Your task to perform on an android device: add a label to a message in the gmail app Image 0: 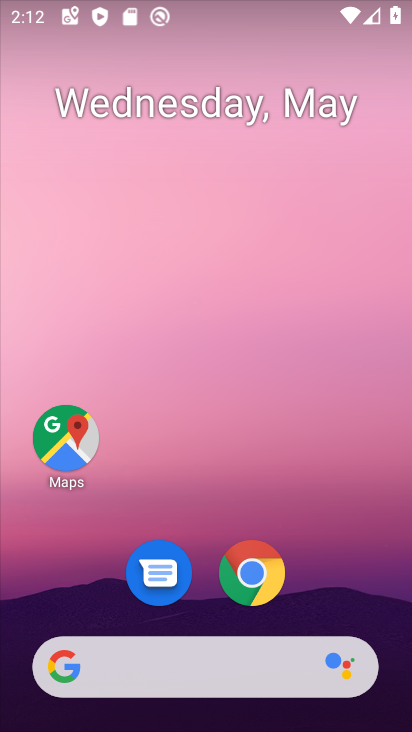
Step 0: drag from (326, 557) to (283, 17)
Your task to perform on an android device: add a label to a message in the gmail app Image 1: 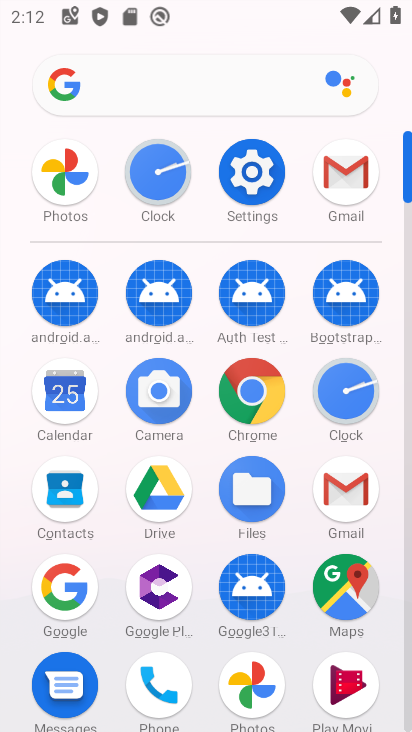
Step 1: click (337, 176)
Your task to perform on an android device: add a label to a message in the gmail app Image 2: 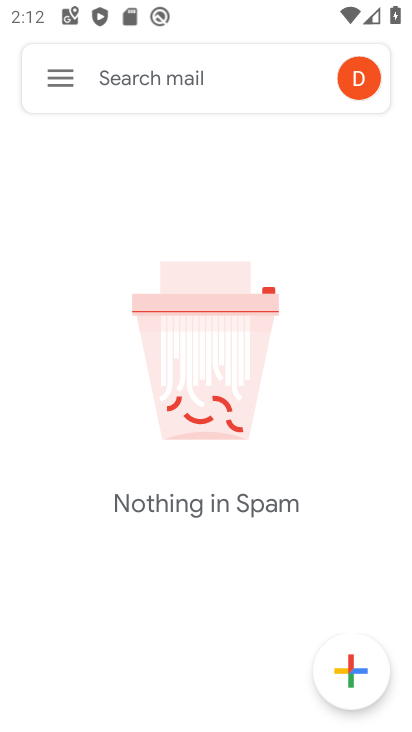
Step 2: click (63, 75)
Your task to perform on an android device: add a label to a message in the gmail app Image 3: 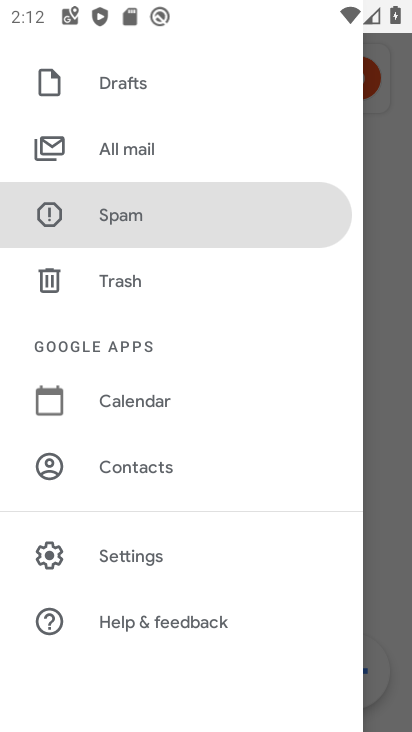
Step 3: click (173, 145)
Your task to perform on an android device: add a label to a message in the gmail app Image 4: 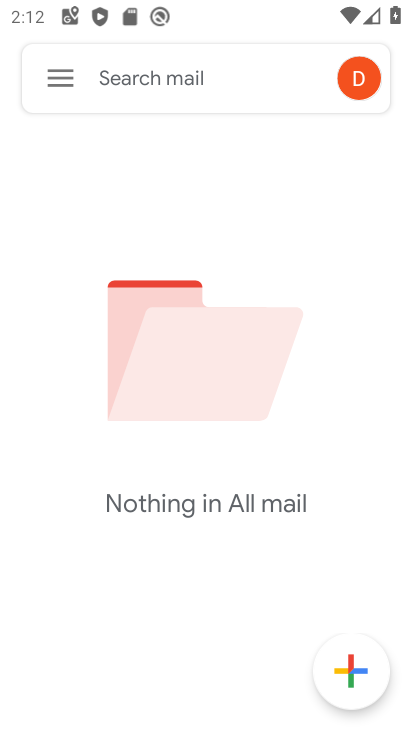
Step 4: task complete